Your task to perform on an android device: turn off javascript in the chrome app Image 0: 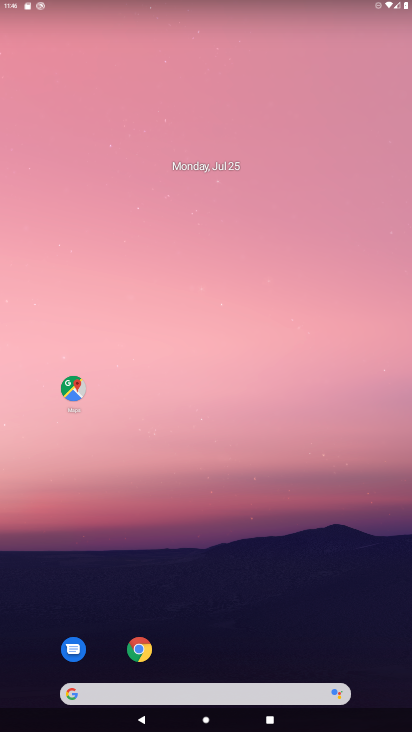
Step 0: click (140, 649)
Your task to perform on an android device: turn off javascript in the chrome app Image 1: 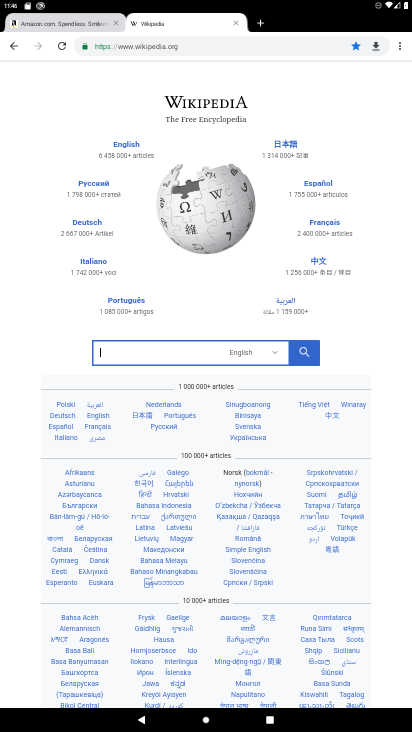
Step 1: click (398, 50)
Your task to perform on an android device: turn off javascript in the chrome app Image 2: 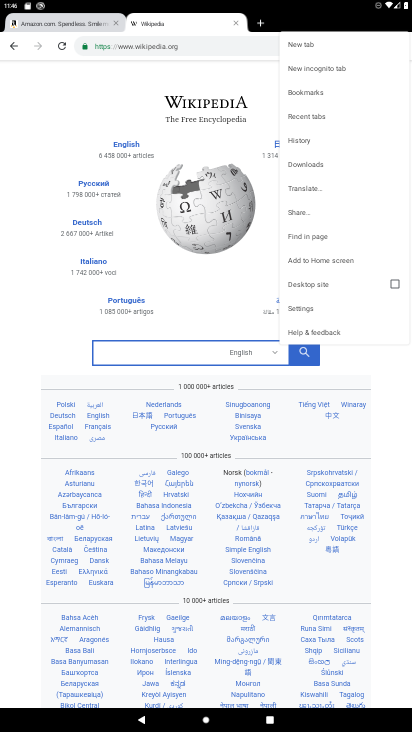
Step 2: click (302, 305)
Your task to perform on an android device: turn off javascript in the chrome app Image 3: 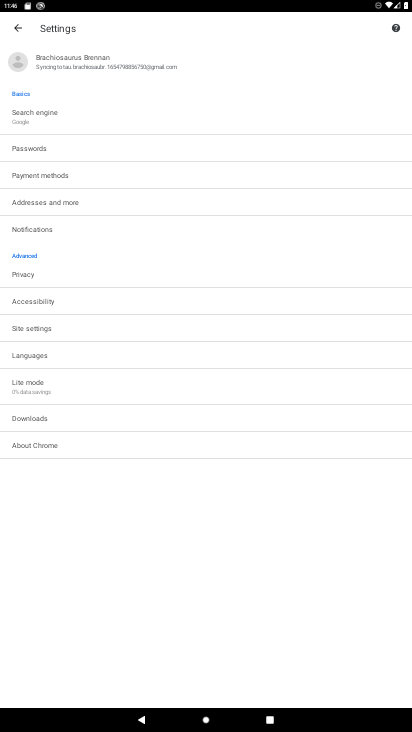
Step 3: click (29, 323)
Your task to perform on an android device: turn off javascript in the chrome app Image 4: 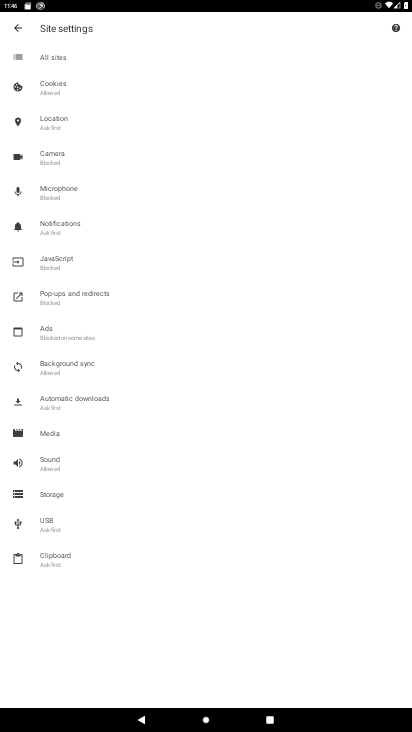
Step 4: click (63, 259)
Your task to perform on an android device: turn off javascript in the chrome app Image 5: 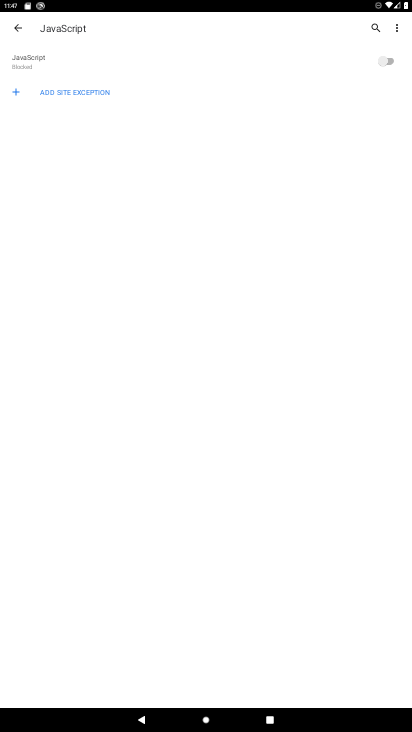
Step 5: task complete